Your task to perform on an android device: turn on data saver in the chrome app Image 0: 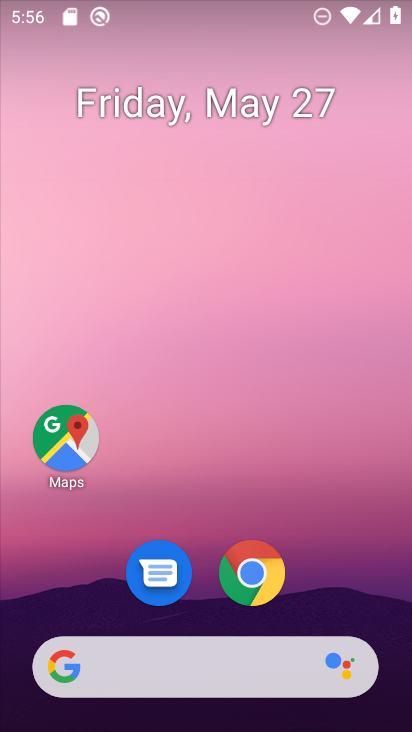
Step 0: press home button
Your task to perform on an android device: turn on data saver in the chrome app Image 1: 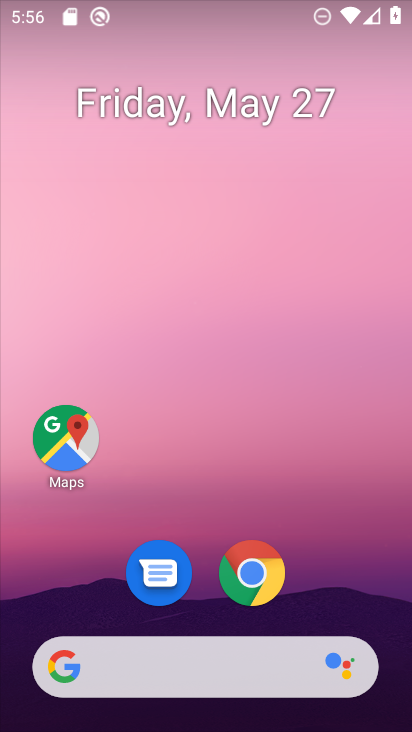
Step 1: click (251, 564)
Your task to perform on an android device: turn on data saver in the chrome app Image 2: 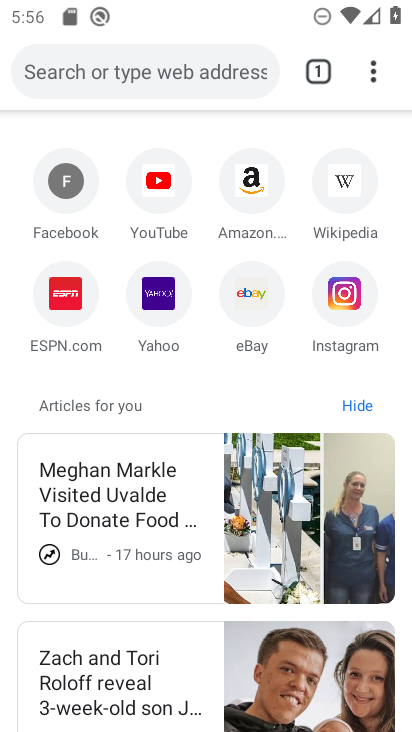
Step 2: click (374, 68)
Your task to perform on an android device: turn on data saver in the chrome app Image 3: 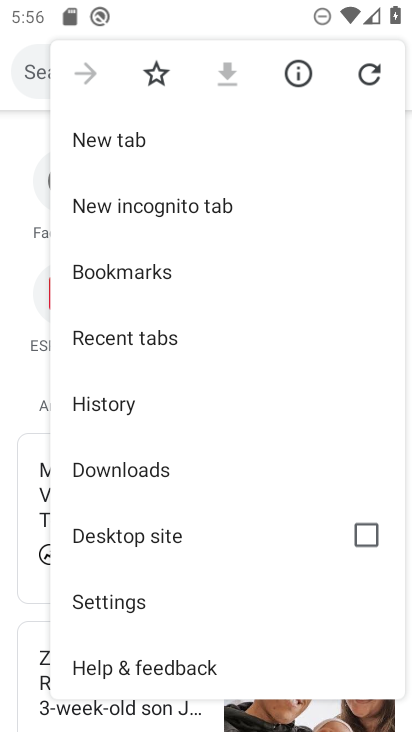
Step 3: click (166, 598)
Your task to perform on an android device: turn on data saver in the chrome app Image 4: 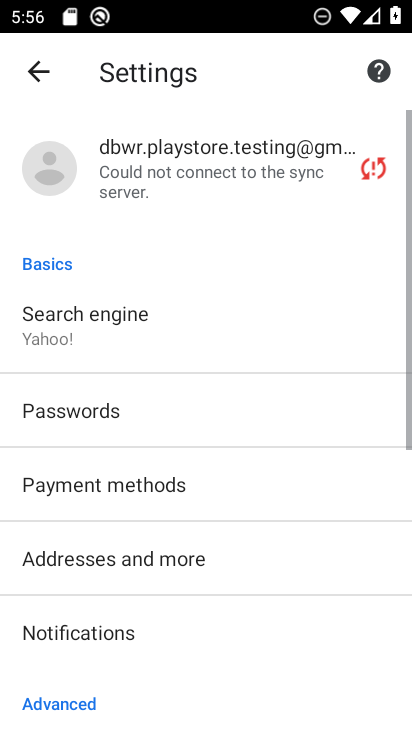
Step 4: drag from (193, 675) to (243, 117)
Your task to perform on an android device: turn on data saver in the chrome app Image 5: 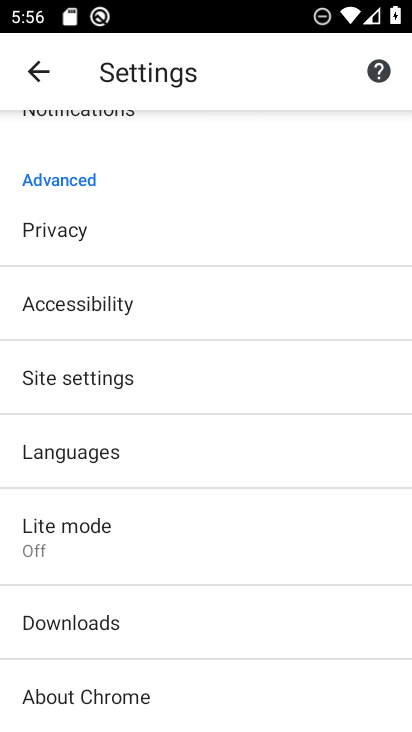
Step 5: click (119, 544)
Your task to perform on an android device: turn on data saver in the chrome app Image 6: 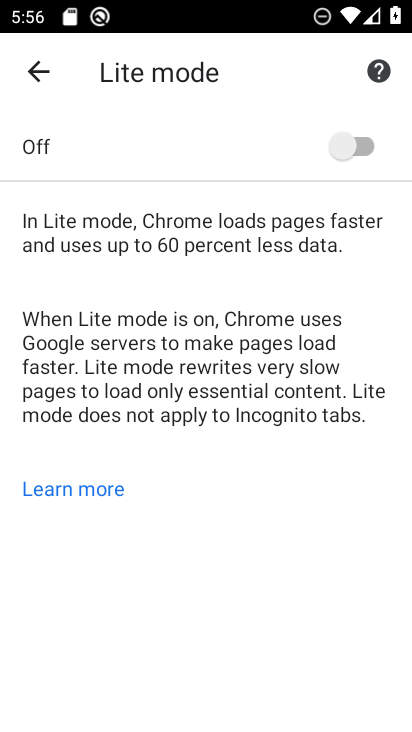
Step 6: click (361, 144)
Your task to perform on an android device: turn on data saver in the chrome app Image 7: 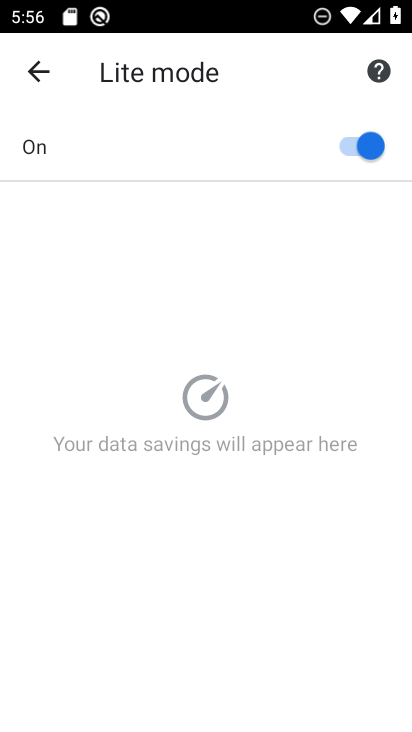
Step 7: task complete